Your task to perform on an android device: What's the weather? Image 0: 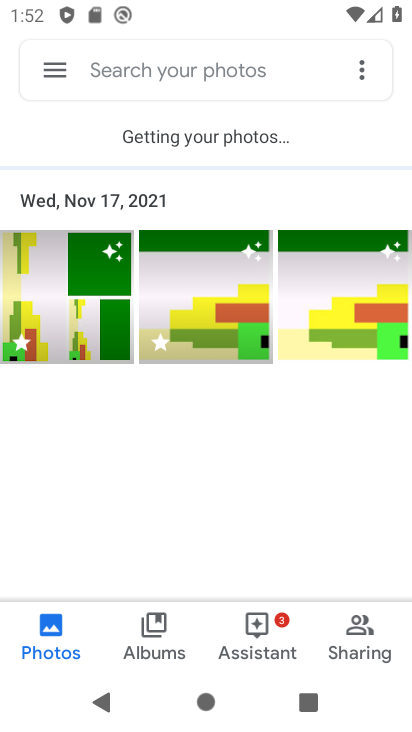
Step 0: press home button
Your task to perform on an android device: What's the weather? Image 1: 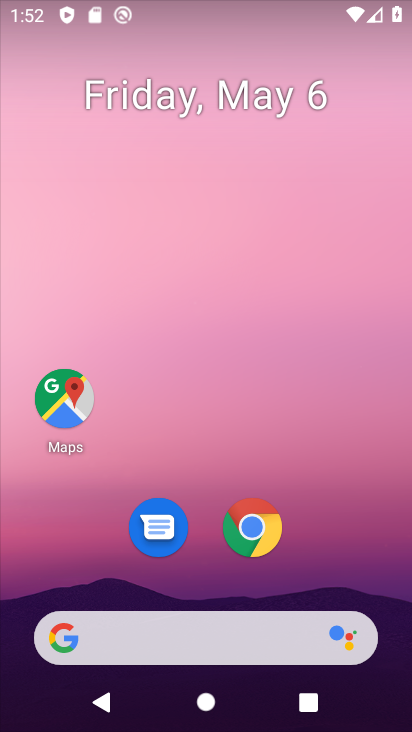
Step 1: drag from (318, 562) to (376, 68)
Your task to perform on an android device: What's the weather? Image 2: 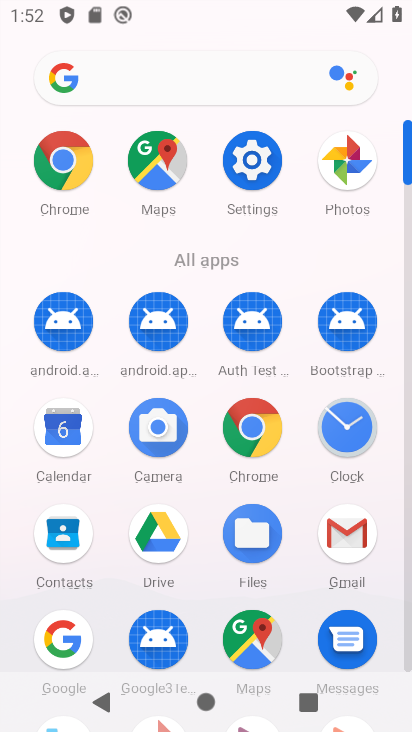
Step 2: click (242, 412)
Your task to perform on an android device: What's the weather? Image 3: 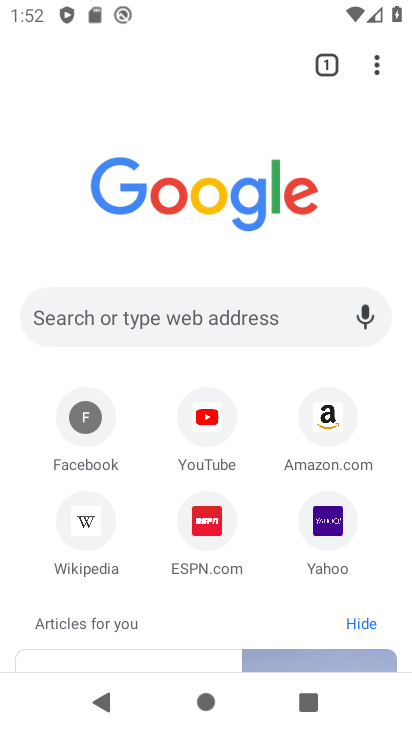
Step 3: click (181, 314)
Your task to perform on an android device: What's the weather? Image 4: 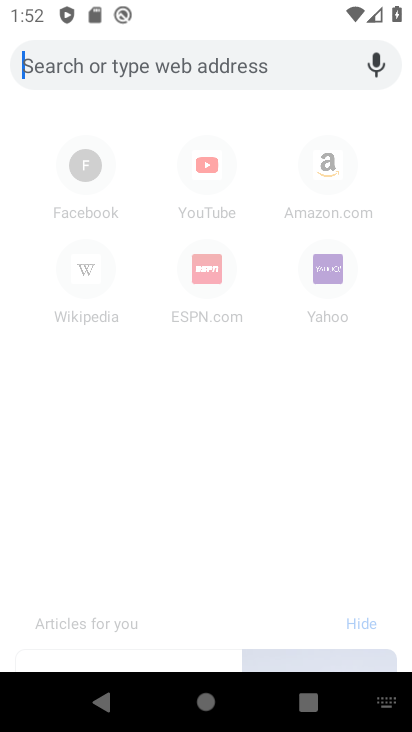
Step 4: type "What's the weather?"
Your task to perform on an android device: What's the weather? Image 5: 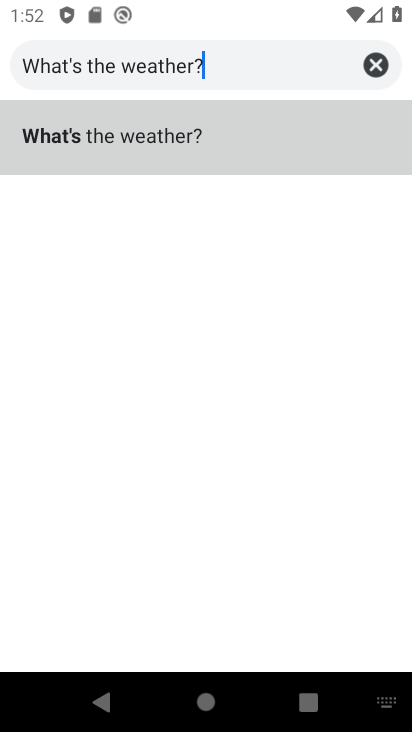
Step 5: click (82, 139)
Your task to perform on an android device: What's the weather? Image 6: 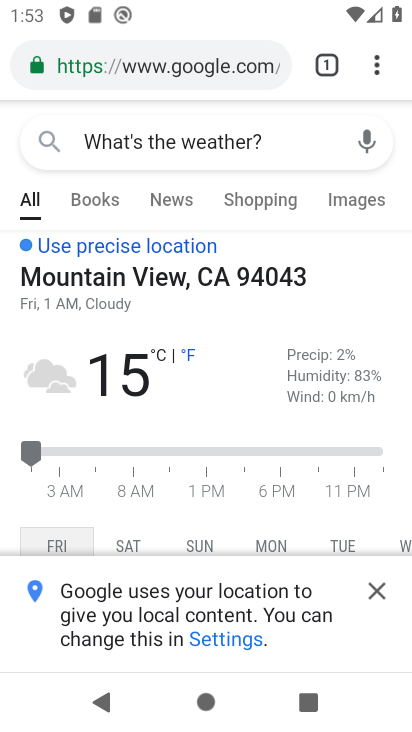
Step 6: task complete